Your task to perform on an android device: Do I have any events tomorrow? Image 0: 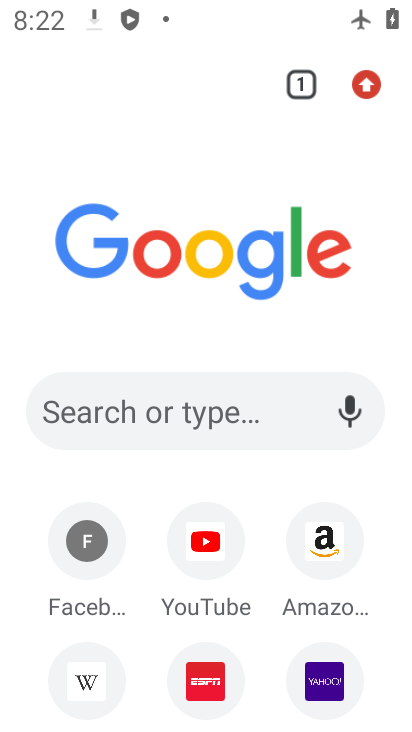
Step 0: press home button
Your task to perform on an android device: Do I have any events tomorrow? Image 1: 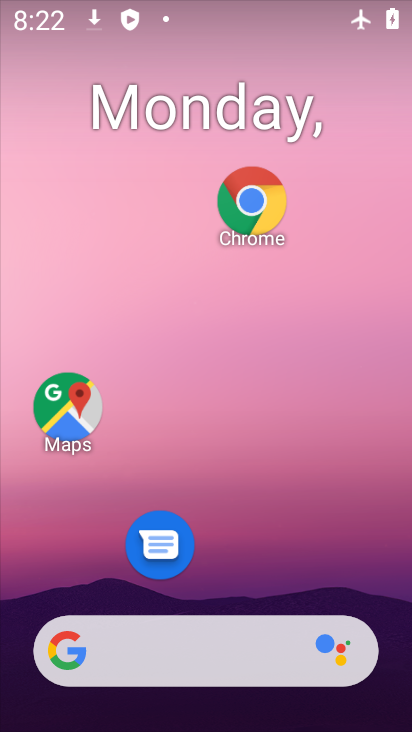
Step 1: drag from (270, 454) to (300, 117)
Your task to perform on an android device: Do I have any events tomorrow? Image 2: 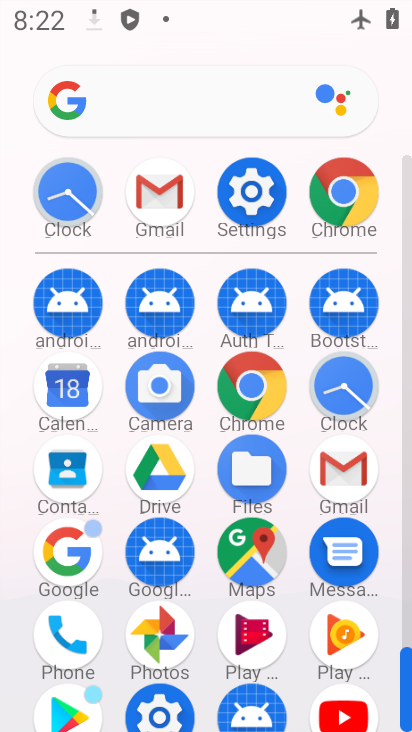
Step 2: click (68, 394)
Your task to perform on an android device: Do I have any events tomorrow? Image 3: 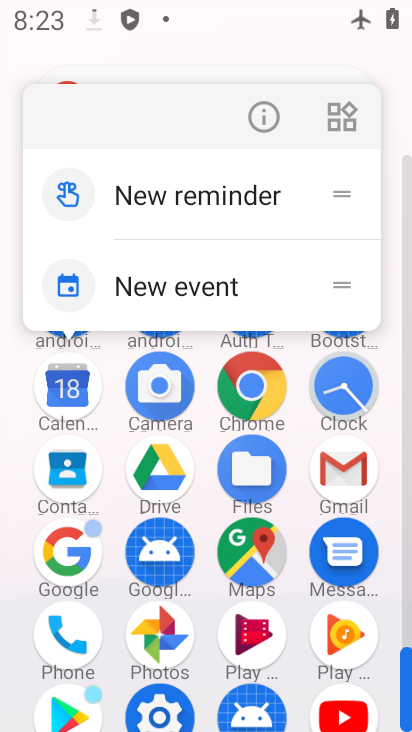
Step 3: click (68, 394)
Your task to perform on an android device: Do I have any events tomorrow? Image 4: 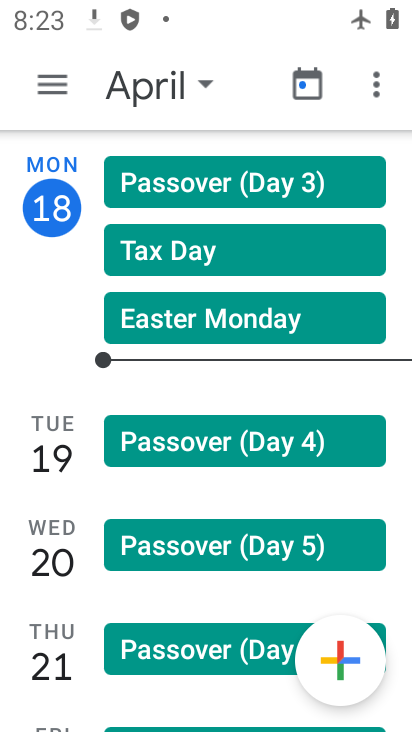
Step 4: click (170, 78)
Your task to perform on an android device: Do I have any events tomorrow? Image 5: 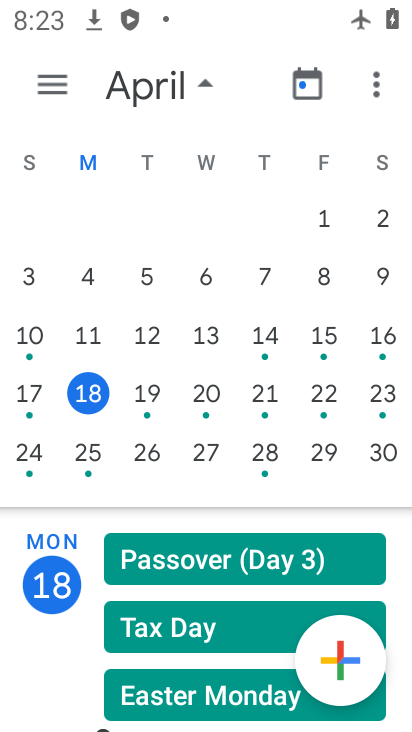
Step 5: click (179, 90)
Your task to perform on an android device: Do I have any events tomorrow? Image 6: 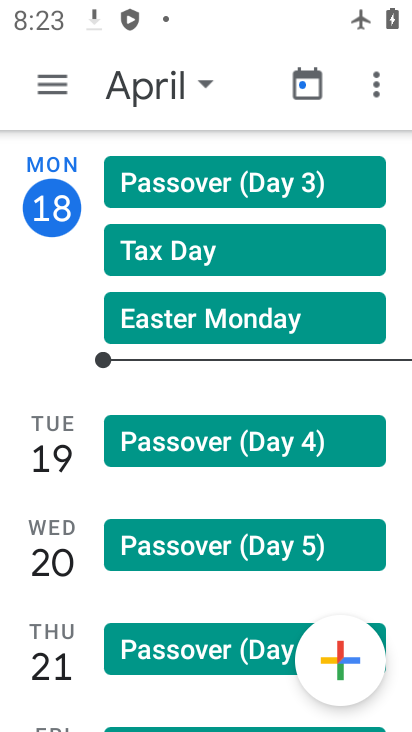
Step 6: click (179, 90)
Your task to perform on an android device: Do I have any events tomorrow? Image 7: 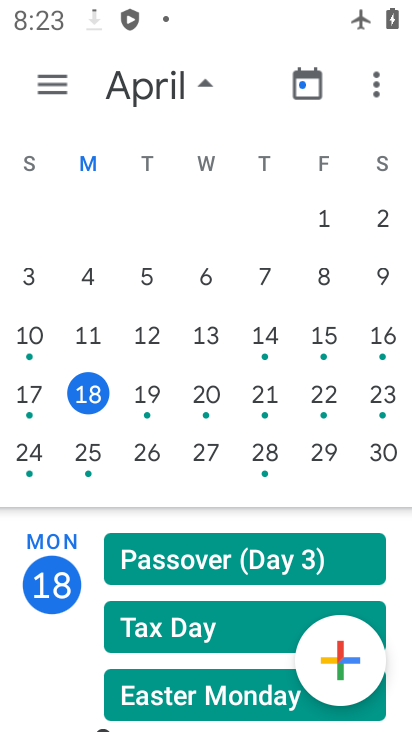
Step 7: click (160, 391)
Your task to perform on an android device: Do I have any events tomorrow? Image 8: 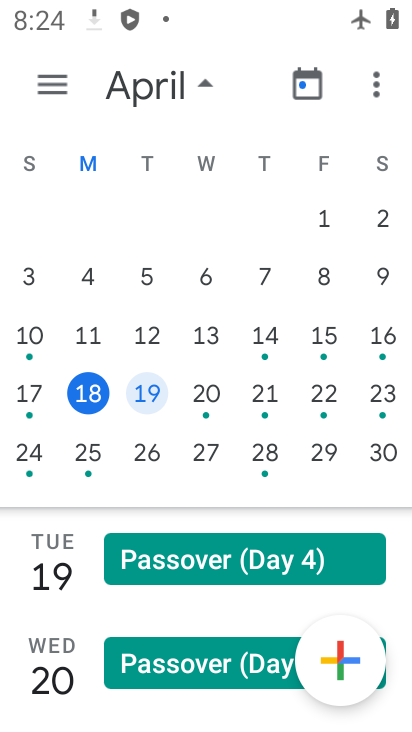
Step 8: task complete